Your task to perform on an android device: turn notification dots off Image 0: 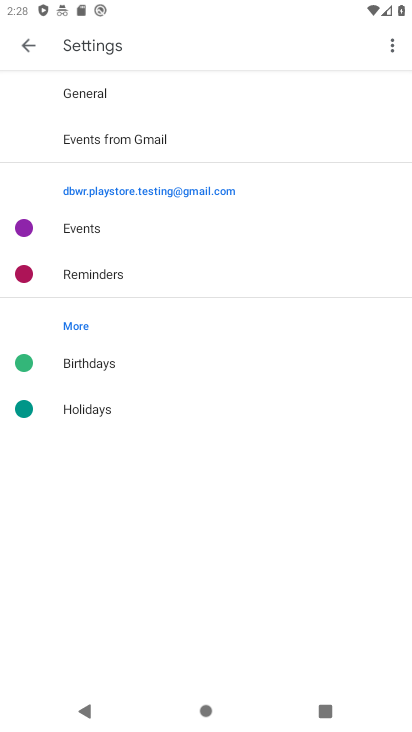
Step 0: press back button
Your task to perform on an android device: turn notification dots off Image 1: 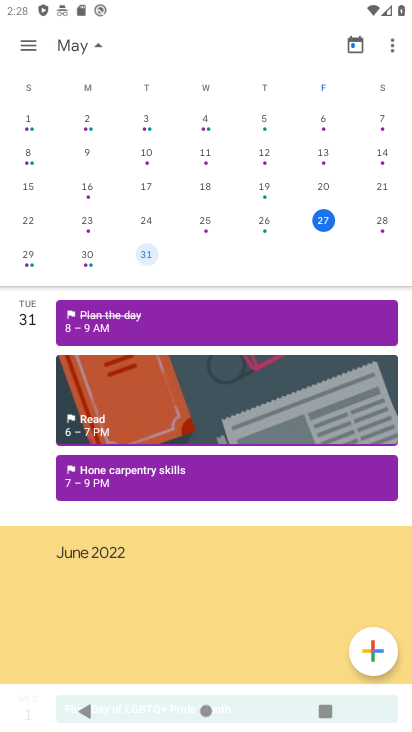
Step 1: press home button
Your task to perform on an android device: turn notification dots off Image 2: 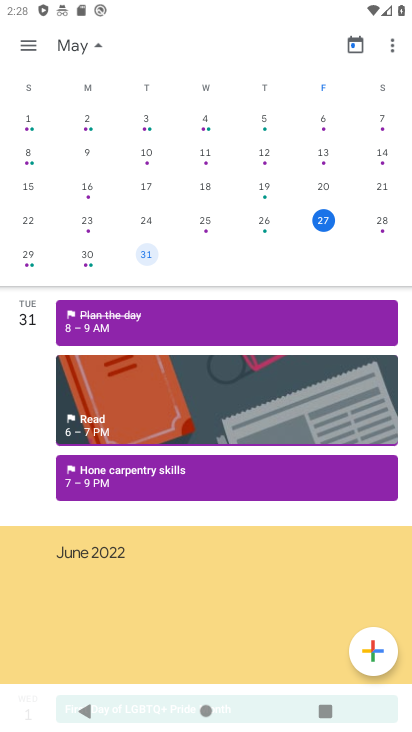
Step 2: press home button
Your task to perform on an android device: turn notification dots off Image 3: 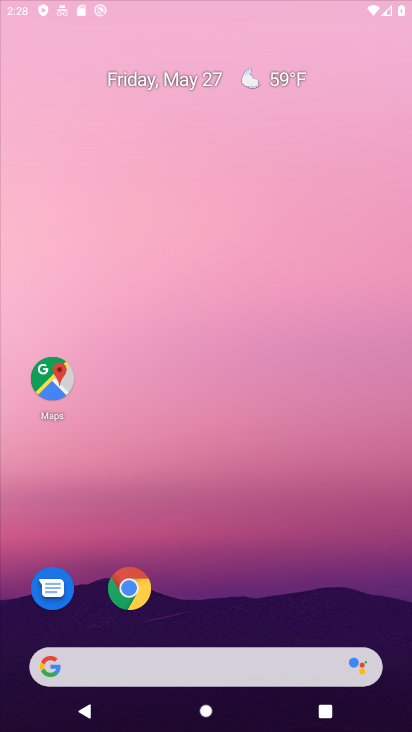
Step 3: press home button
Your task to perform on an android device: turn notification dots off Image 4: 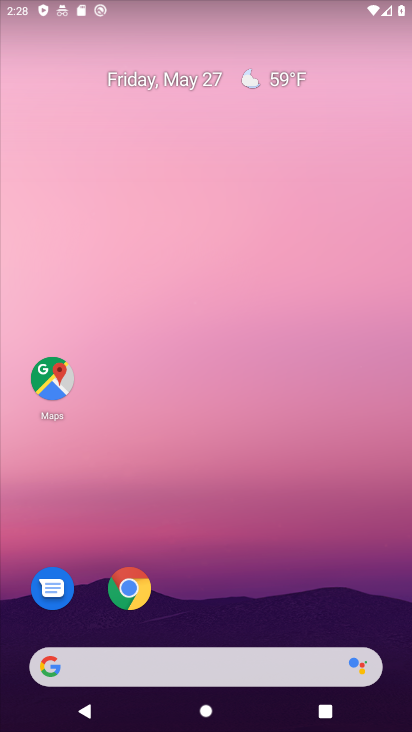
Step 4: drag from (273, 686) to (217, 7)
Your task to perform on an android device: turn notification dots off Image 5: 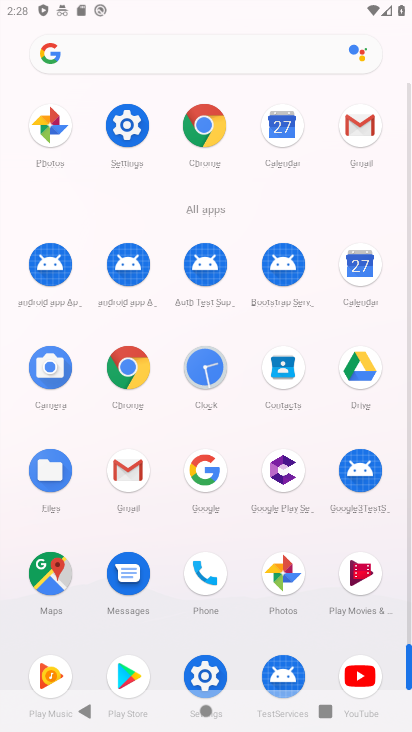
Step 5: drag from (270, 665) to (229, 109)
Your task to perform on an android device: turn notification dots off Image 6: 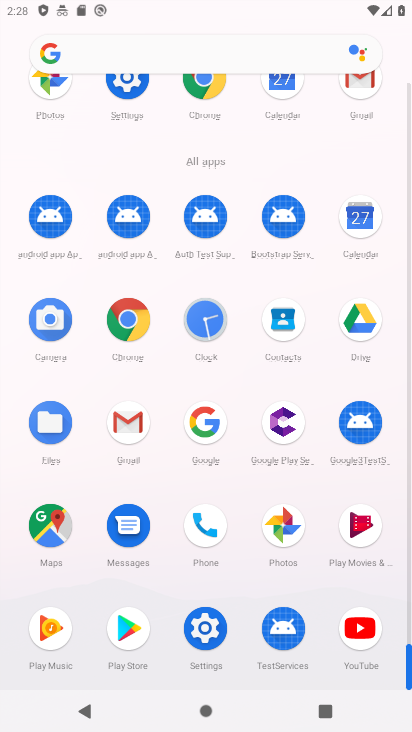
Step 6: click (207, 630)
Your task to perform on an android device: turn notification dots off Image 7: 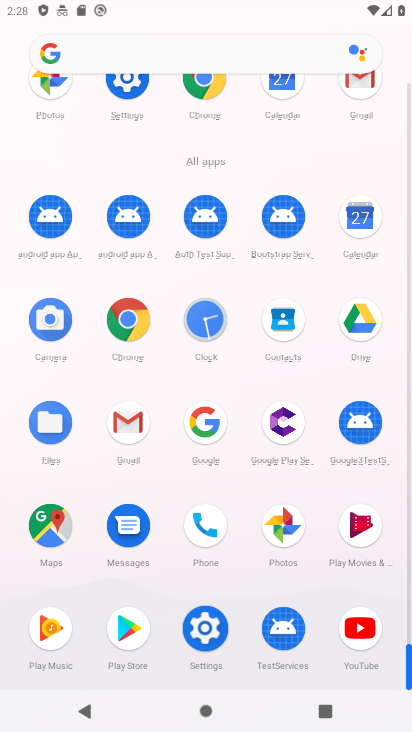
Step 7: click (207, 630)
Your task to perform on an android device: turn notification dots off Image 8: 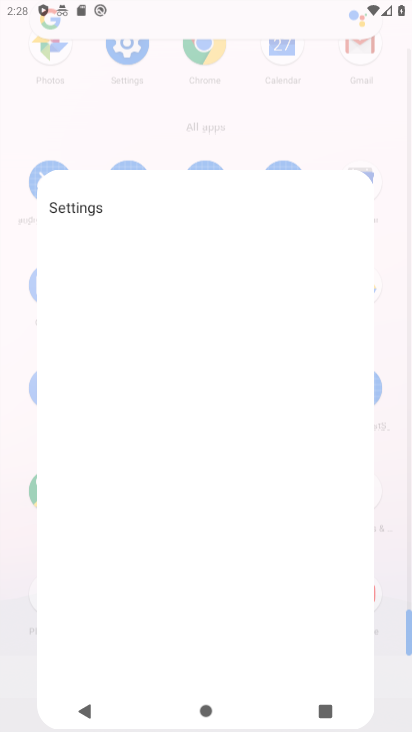
Step 8: click (207, 630)
Your task to perform on an android device: turn notification dots off Image 9: 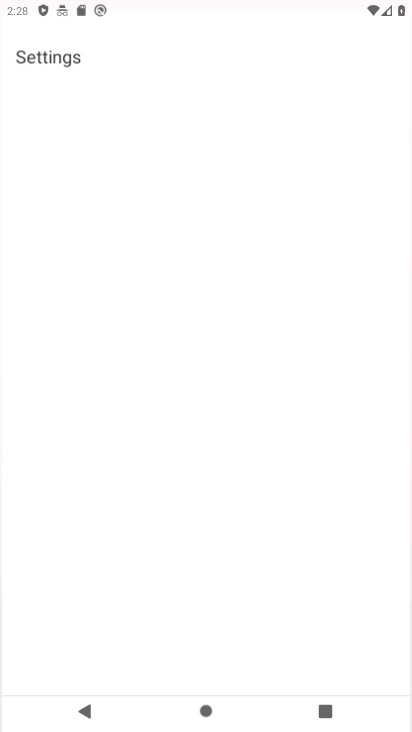
Step 9: click (207, 630)
Your task to perform on an android device: turn notification dots off Image 10: 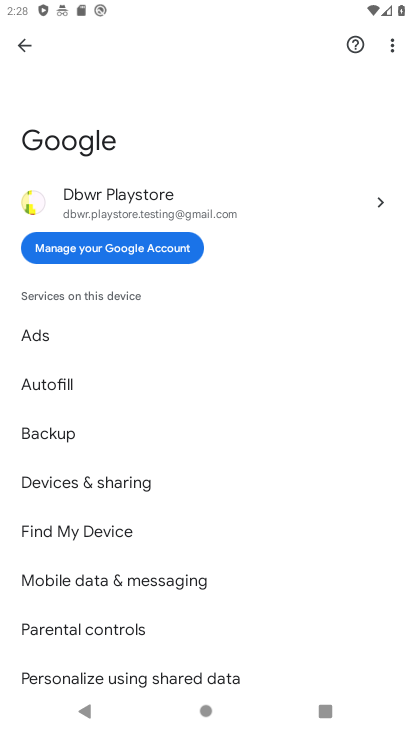
Step 10: press back button
Your task to perform on an android device: turn notification dots off Image 11: 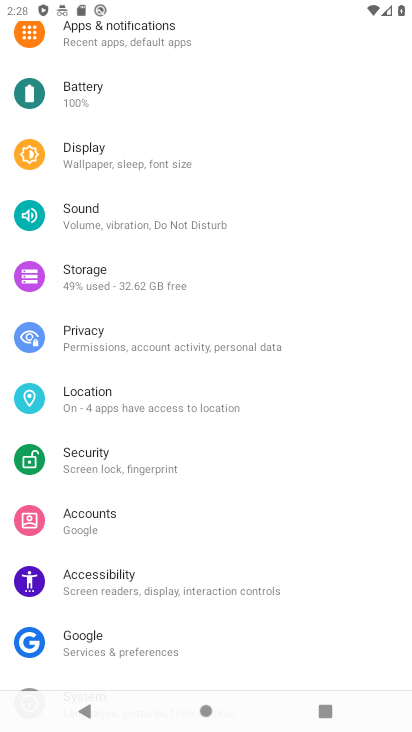
Step 11: click (113, 31)
Your task to perform on an android device: turn notification dots off Image 12: 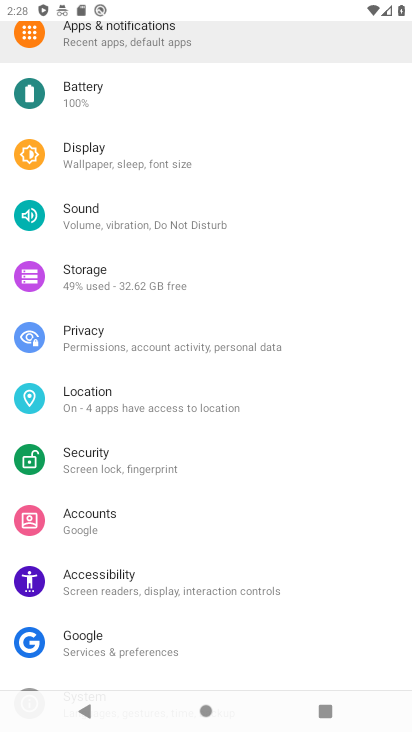
Step 12: click (122, 35)
Your task to perform on an android device: turn notification dots off Image 13: 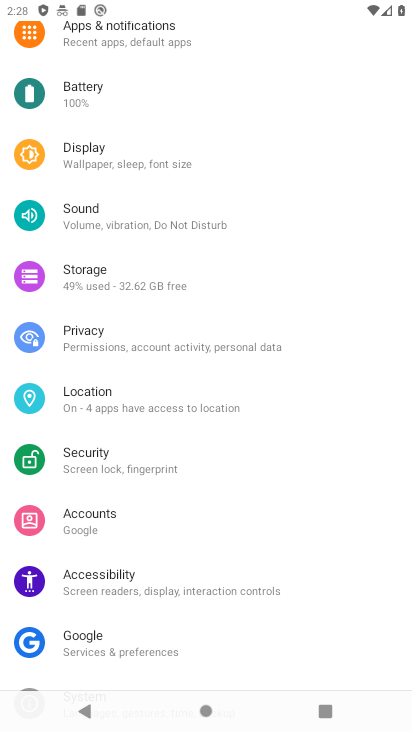
Step 13: click (122, 35)
Your task to perform on an android device: turn notification dots off Image 14: 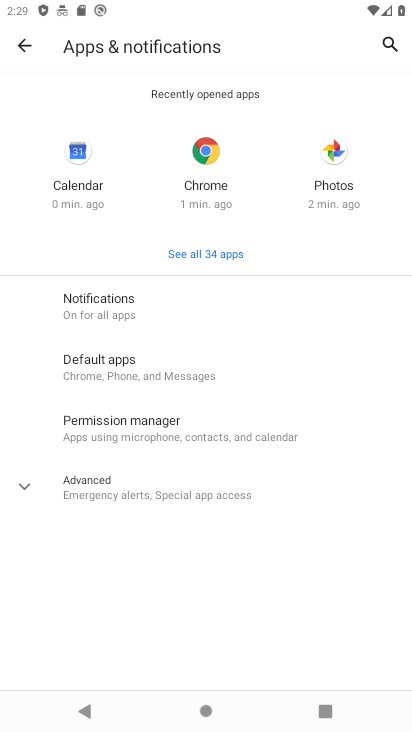
Step 14: click (78, 298)
Your task to perform on an android device: turn notification dots off Image 15: 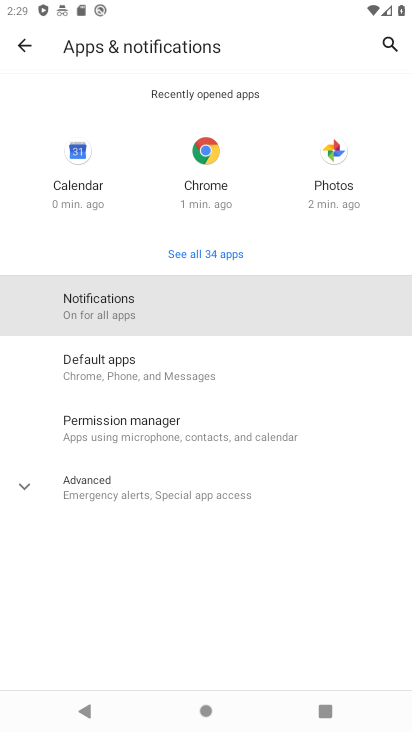
Step 15: click (80, 302)
Your task to perform on an android device: turn notification dots off Image 16: 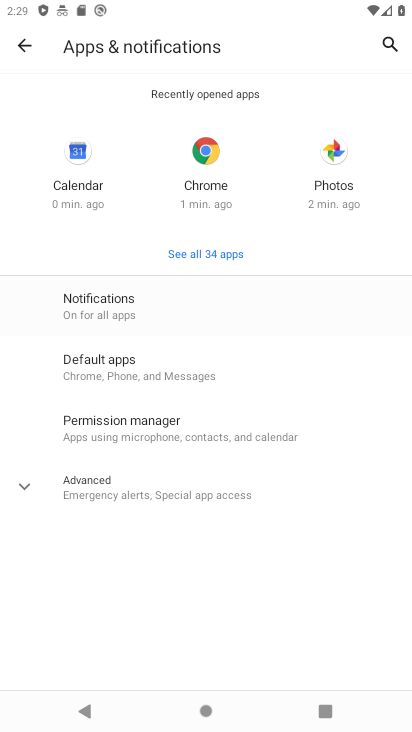
Step 16: click (80, 302)
Your task to perform on an android device: turn notification dots off Image 17: 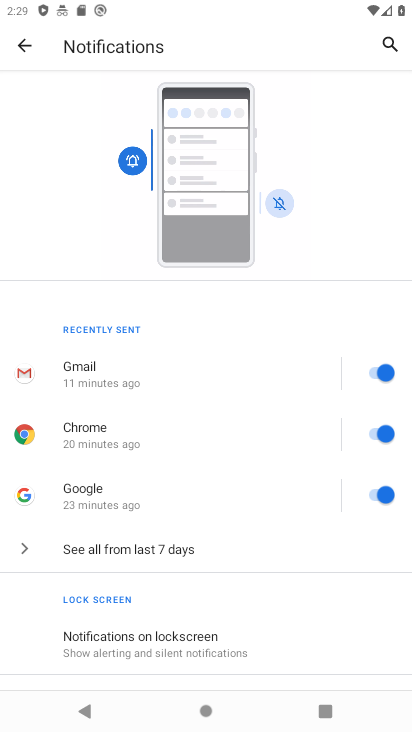
Step 17: drag from (199, 581) to (136, 274)
Your task to perform on an android device: turn notification dots off Image 18: 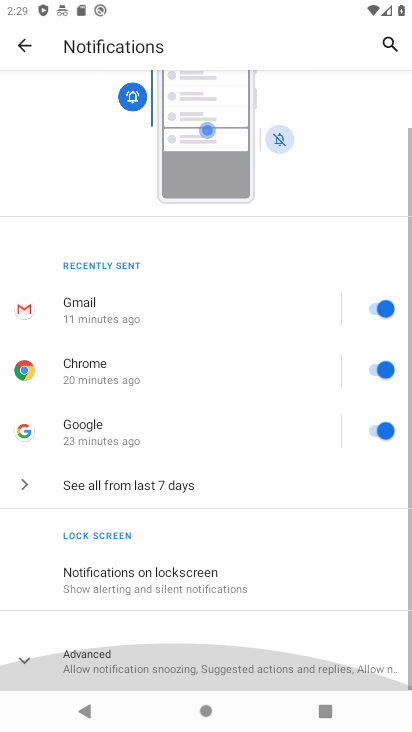
Step 18: drag from (210, 521) to (203, 199)
Your task to perform on an android device: turn notification dots off Image 19: 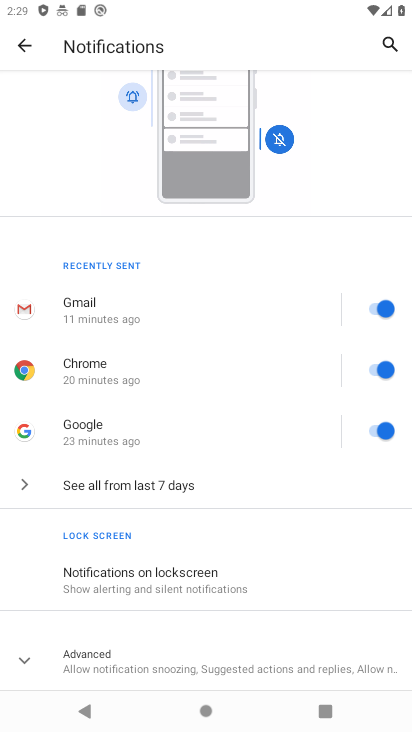
Step 19: click (88, 657)
Your task to perform on an android device: turn notification dots off Image 20: 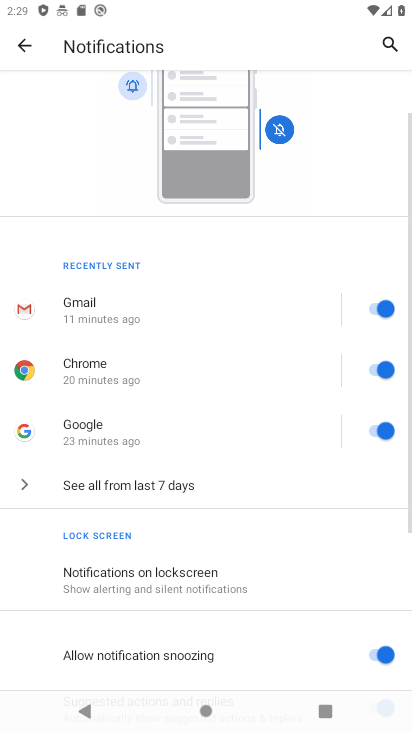
Step 20: task complete